Your task to perform on an android device: Open the stopwatch Image 0: 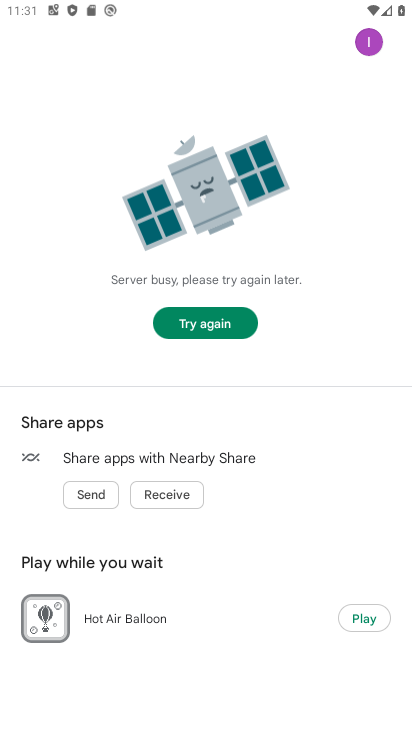
Step 0: press home button
Your task to perform on an android device: Open the stopwatch Image 1: 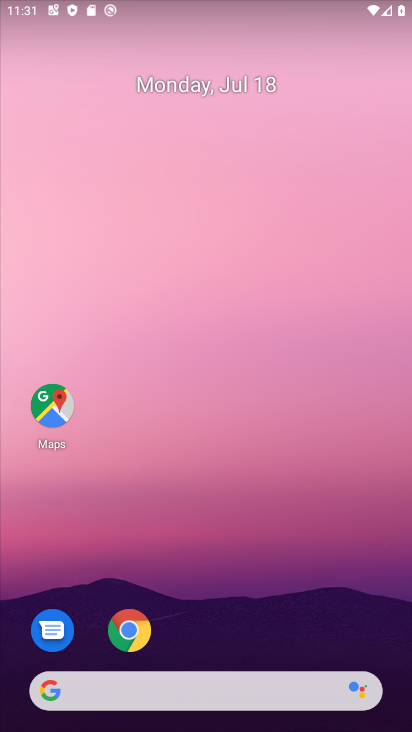
Step 1: drag from (279, 625) to (236, 21)
Your task to perform on an android device: Open the stopwatch Image 2: 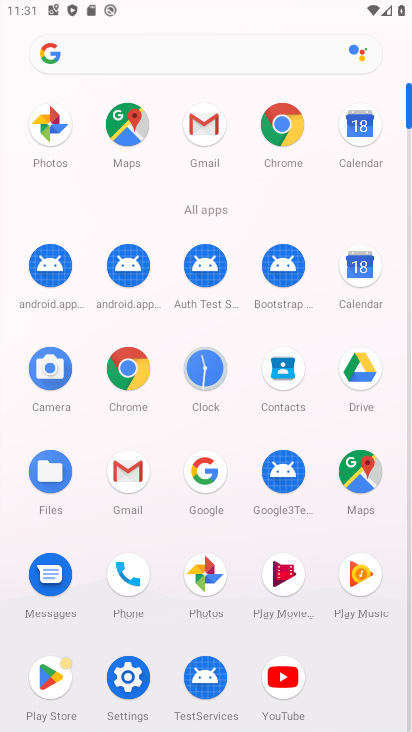
Step 2: click (216, 366)
Your task to perform on an android device: Open the stopwatch Image 3: 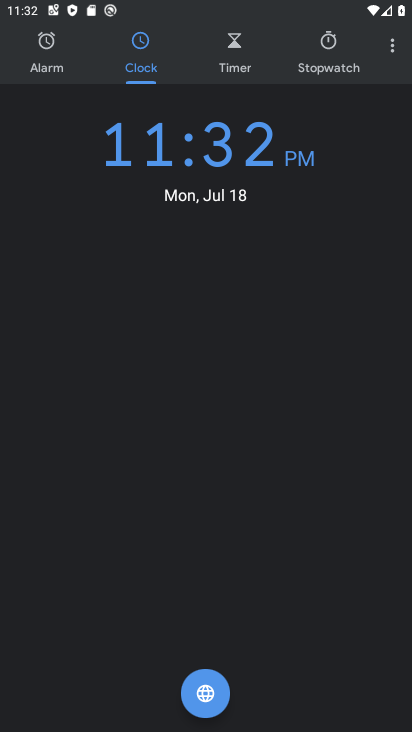
Step 3: click (333, 64)
Your task to perform on an android device: Open the stopwatch Image 4: 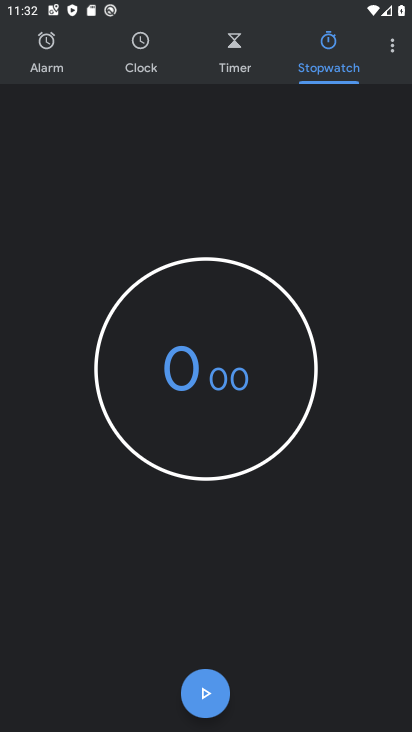
Step 4: task complete